Your task to perform on an android device: move a message to another label in the gmail app Image 0: 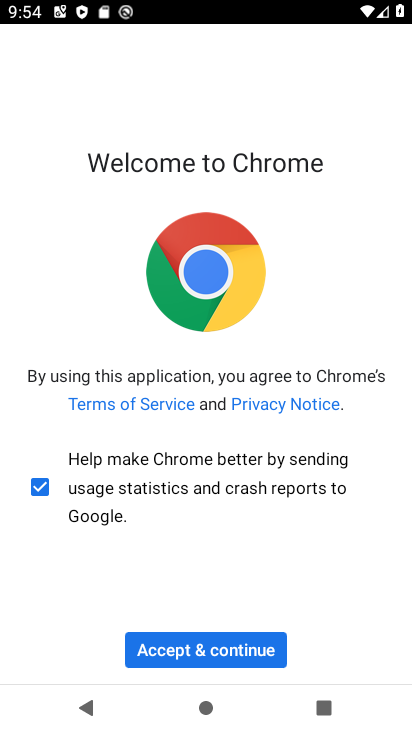
Step 0: press home button
Your task to perform on an android device: move a message to another label in the gmail app Image 1: 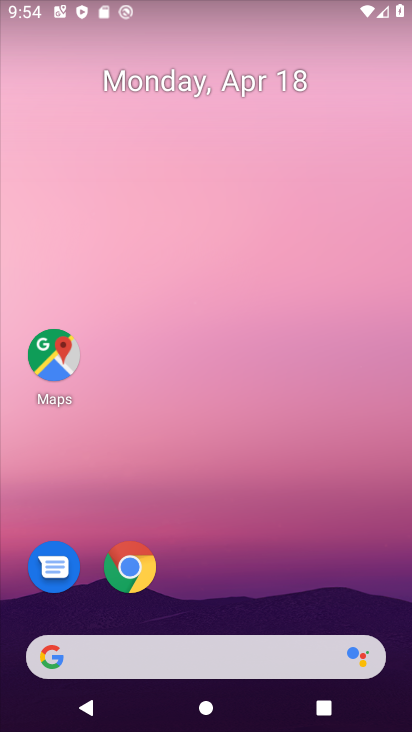
Step 1: drag from (380, 568) to (412, 172)
Your task to perform on an android device: move a message to another label in the gmail app Image 2: 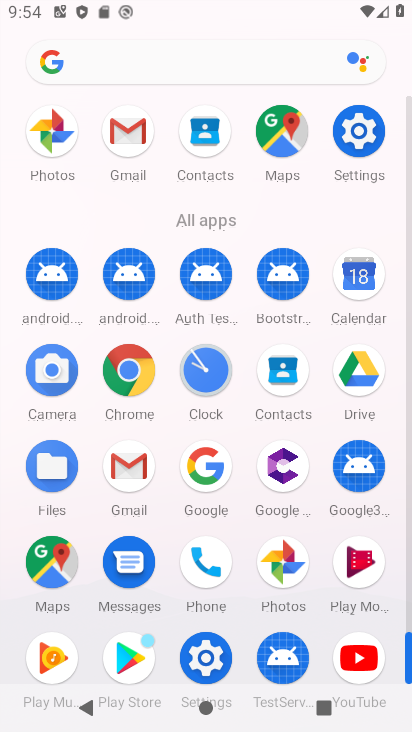
Step 2: click (110, 480)
Your task to perform on an android device: move a message to another label in the gmail app Image 3: 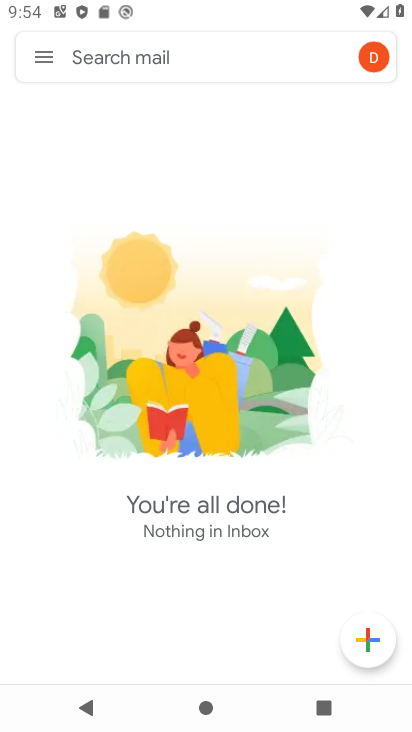
Step 3: click (41, 66)
Your task to perform on an android device: move a message to another label in the gmail app Image 4: 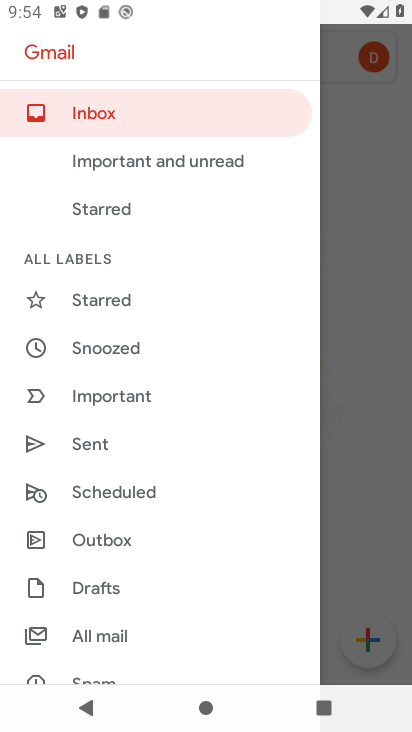
Step 4: click (120, 640)
Your task to perform on an android device: move a message to another label in the gmail app Image 5: 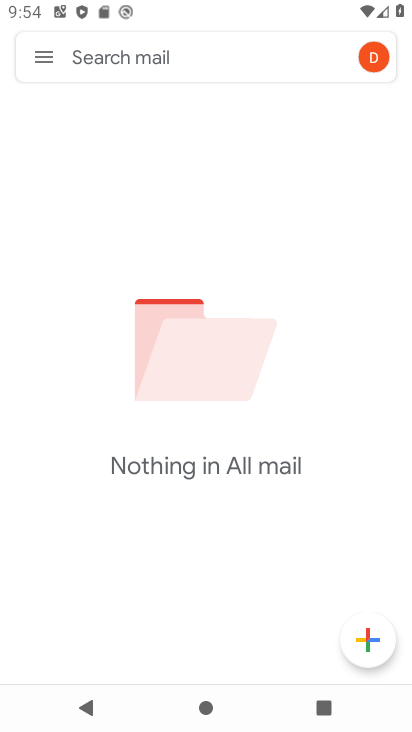
Step 5: task complete